Your task to perform on an android device: Open ESPN.com Image 0: 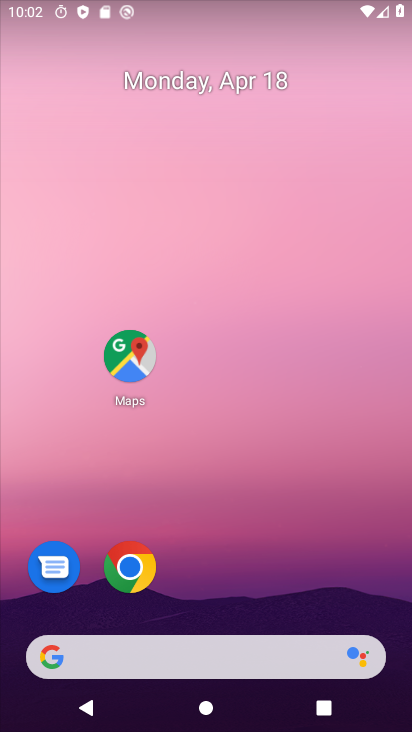
Step 0: drag from (243, 649) to (390, 103)
Your task to perform on an android device: Open ESPN.com Image 1: 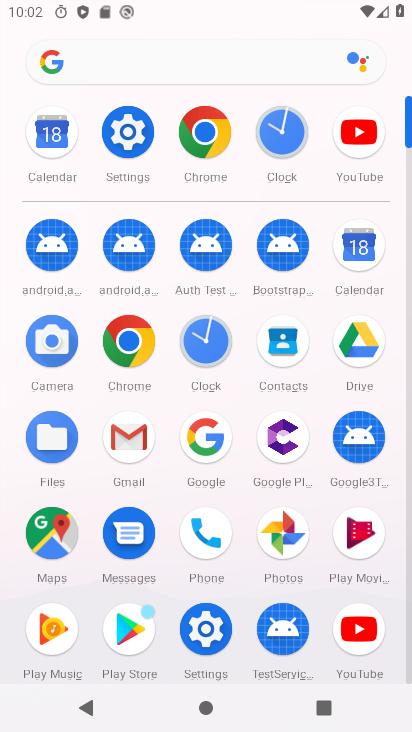
Step 1: click (132, 326)
Your task to perform on an android device: Open ESPN.com Image 2: 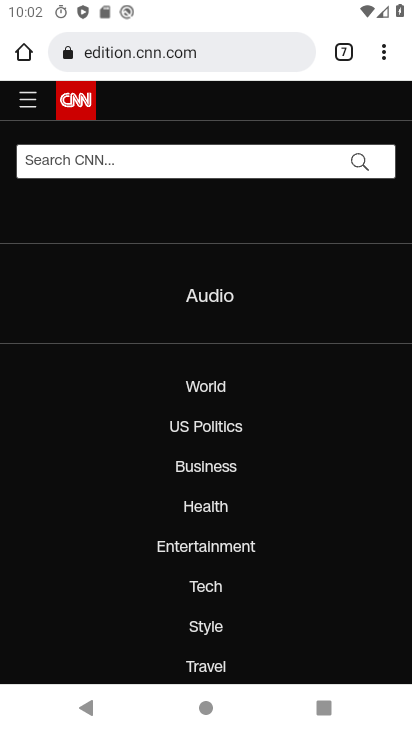
Step 2: click (202, 47)
Your task to perform on an android device: Open ESPN.com Image 3: 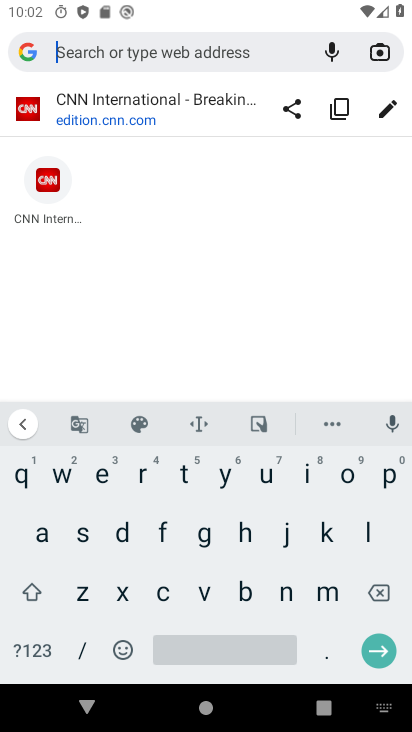
Step 3: click (103, 477)
Your task to perform on an android device: Open ESPN.com Image 4: 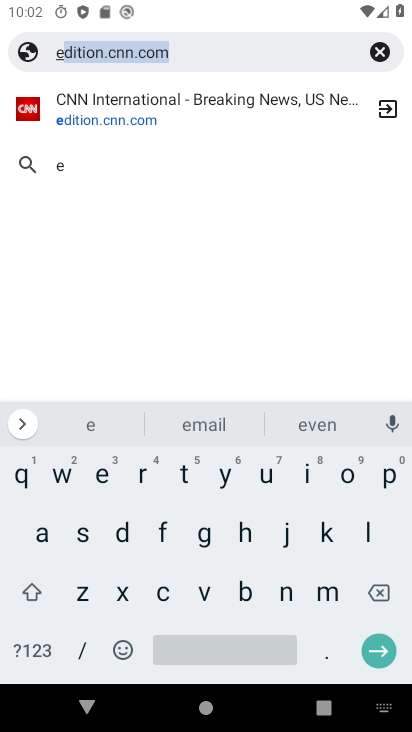
Step 4: click (78, 535)
Your task to perform on an android device: Open ESPN.com Image 5: 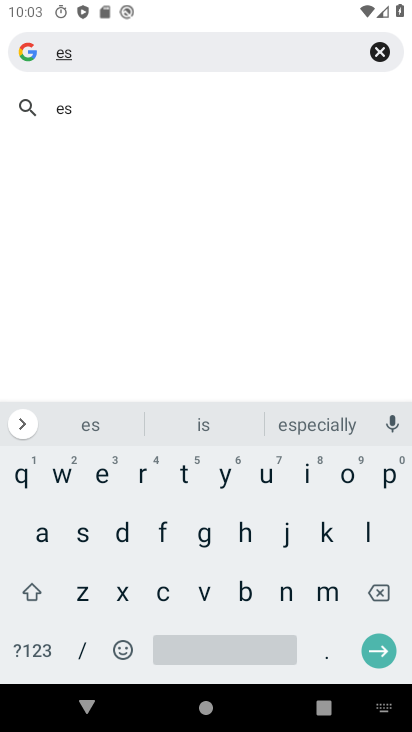
Step 5: click (391, 476)
Your task to perform on an android device: Open ESPN.com Image 6: 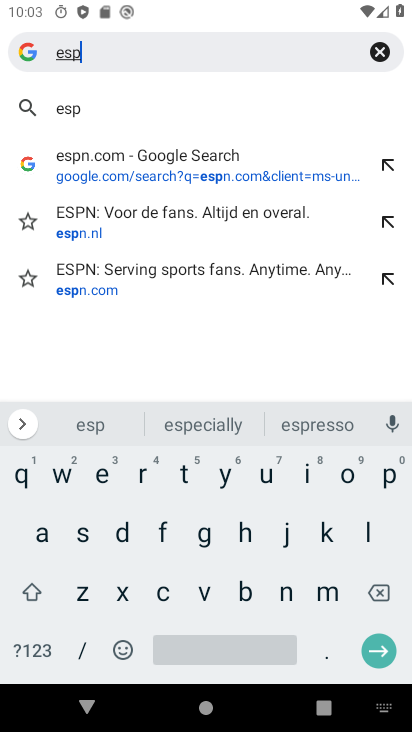
Step 6: click (149, 161)
Your task to perform on an android device: Open ESPN.com Image 7: 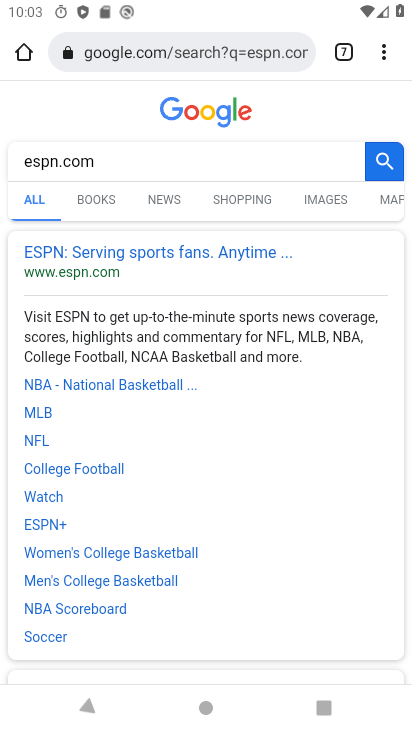
Step 7: click (74, 247)
Your task to perform on an android device: Open ESPN.com Image 8: 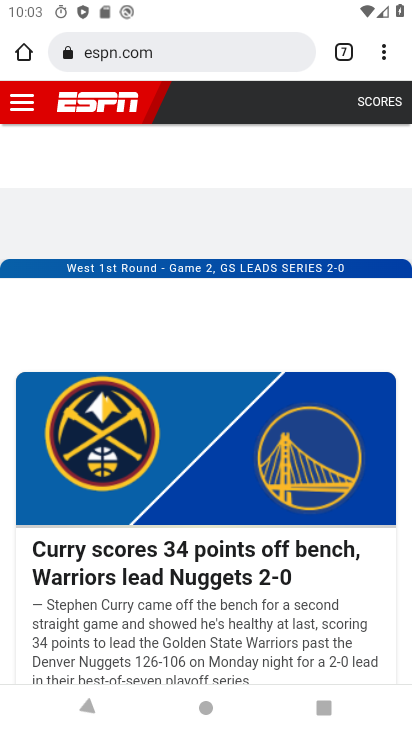
Step 8: task complete